Your task to perform on an android device: Open notification settings Image 0: 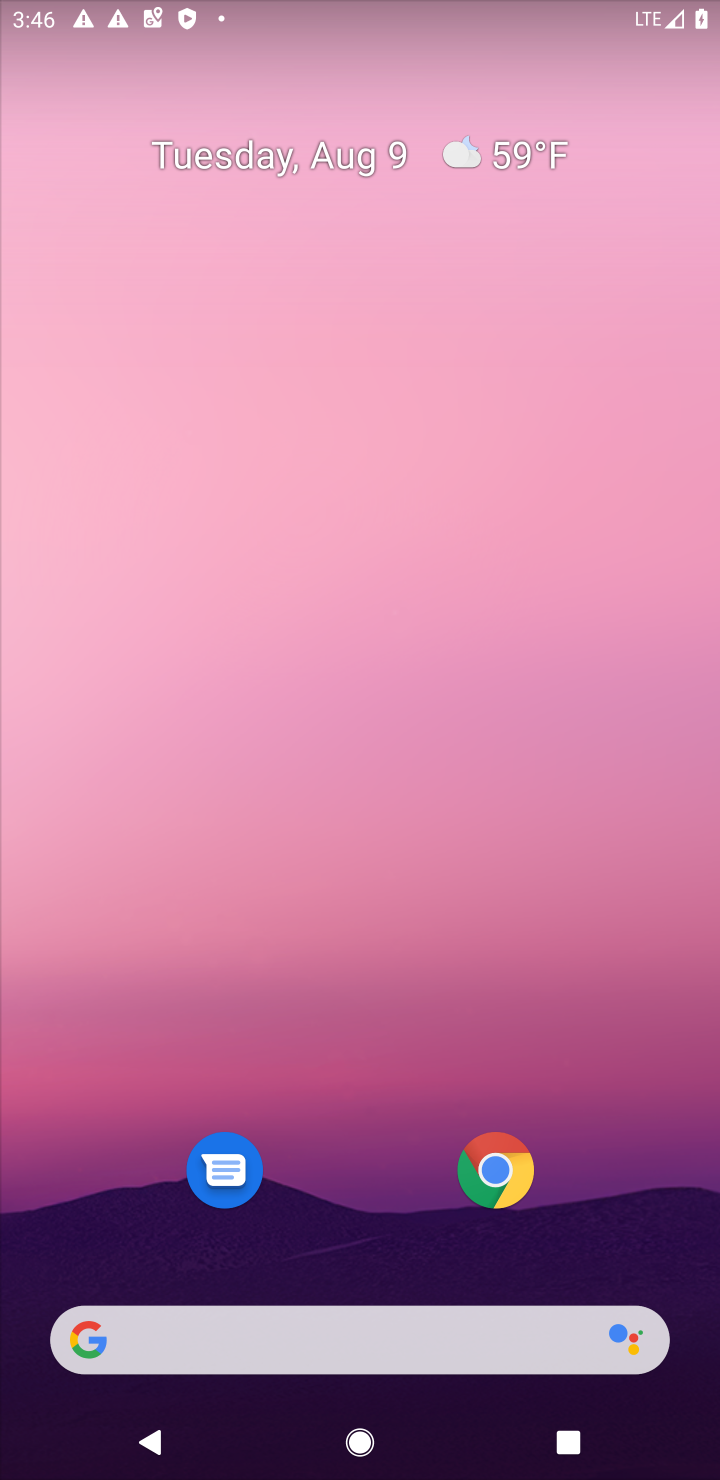
Step 0: press home button
Your task to perform on an android device: Open notification settings Image 1: 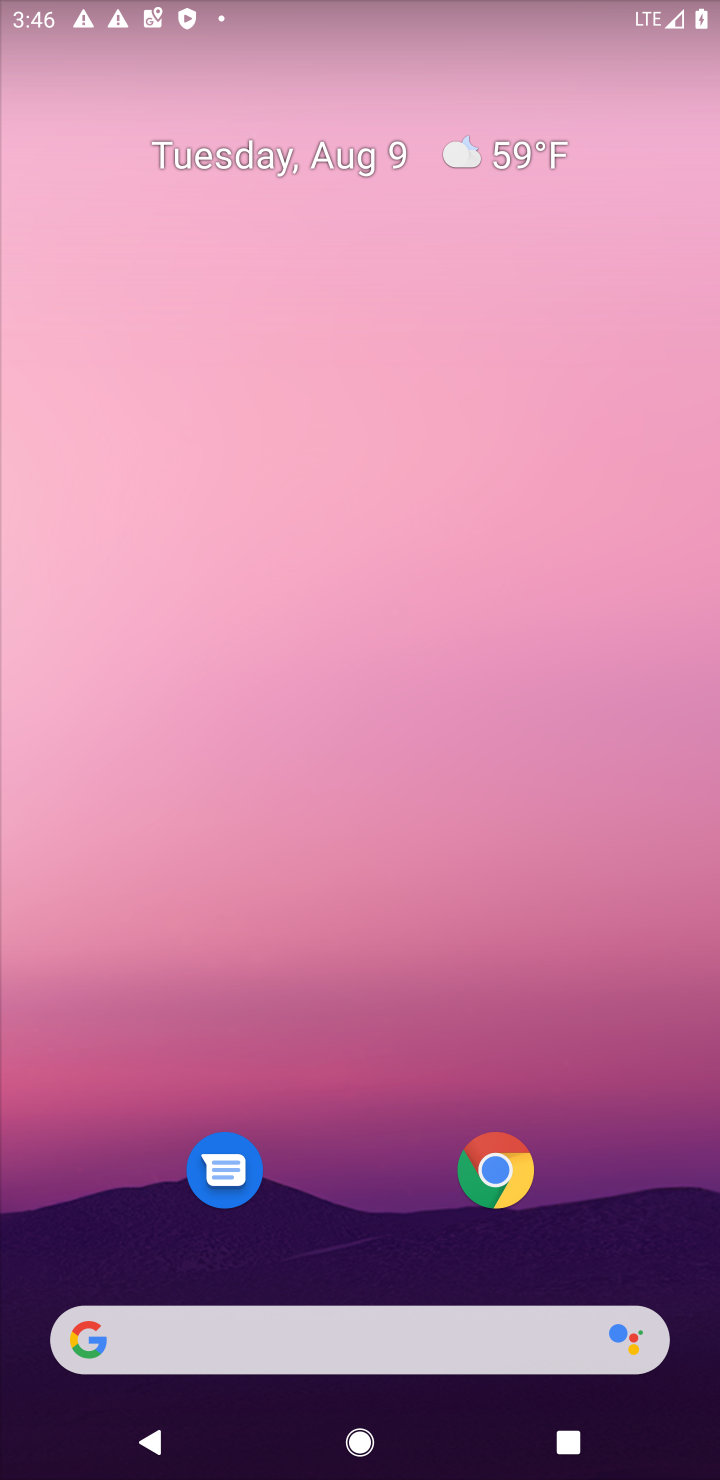
Step 1: drag from (355, 1196) to (582, 297)
Your task to perform on an android device: Open notification settings Image 2: 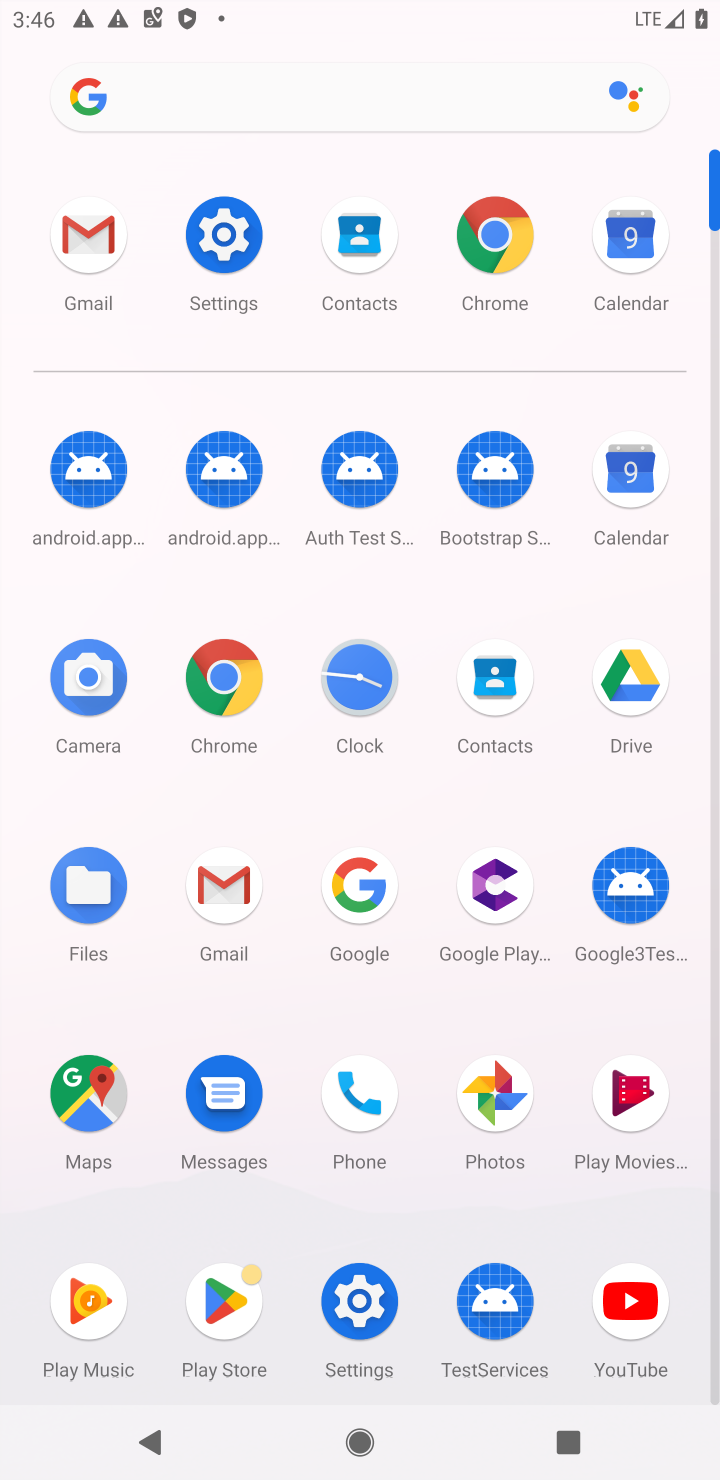
Step 2: click (213, 232)
Your task to perform on an android device: Open notification settings Image 3: 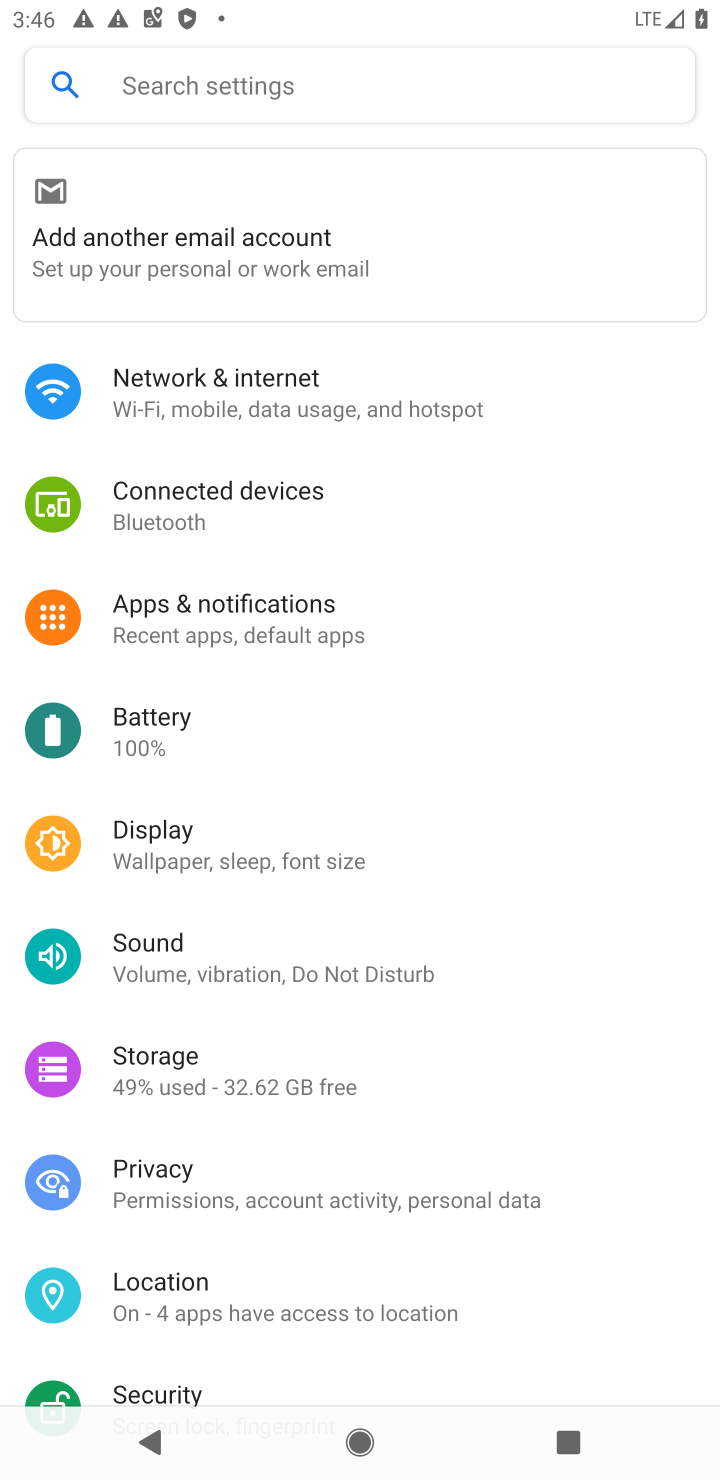
Step 3: click (174, 629)
Your task to perform on an android device: Open notification settings Image 4: 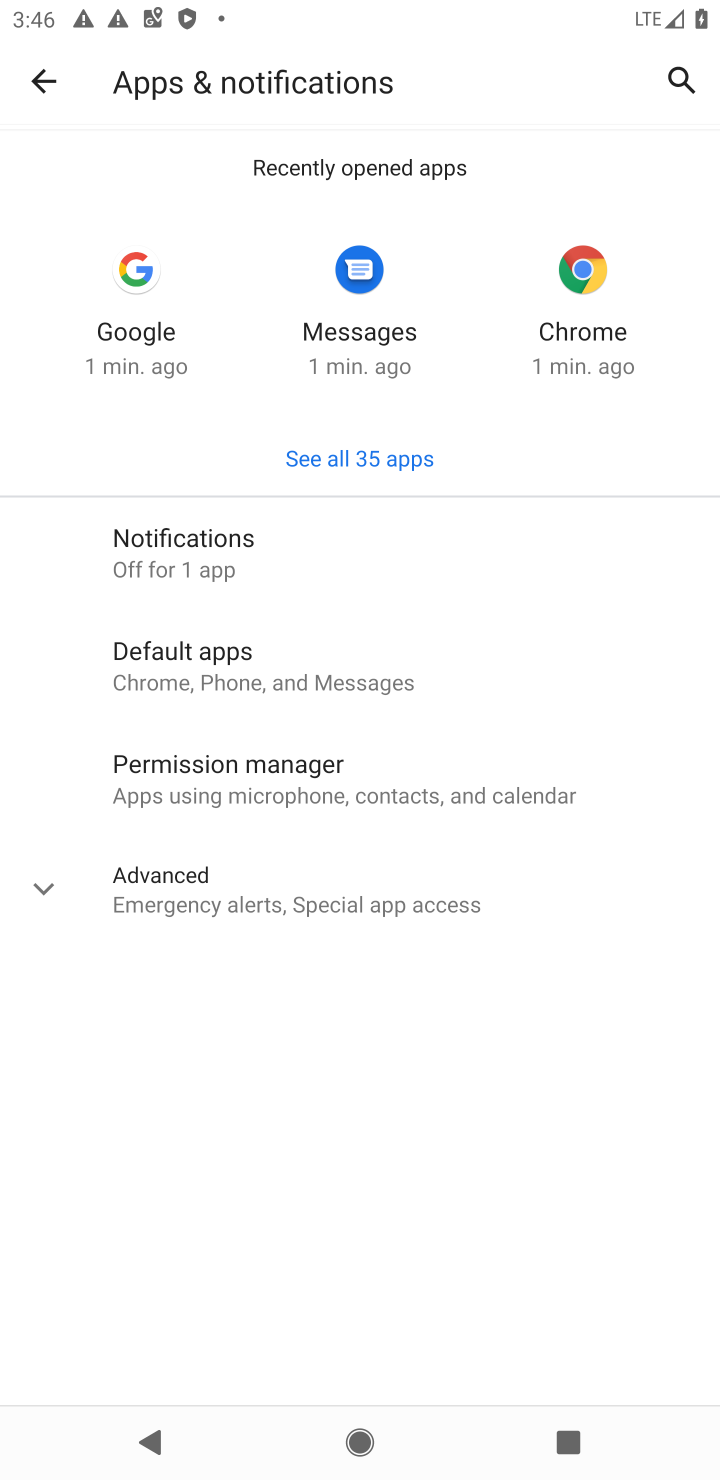
Step 4: click (191, 553)
Your task to perform on an android device: Open notification settings Image 5: 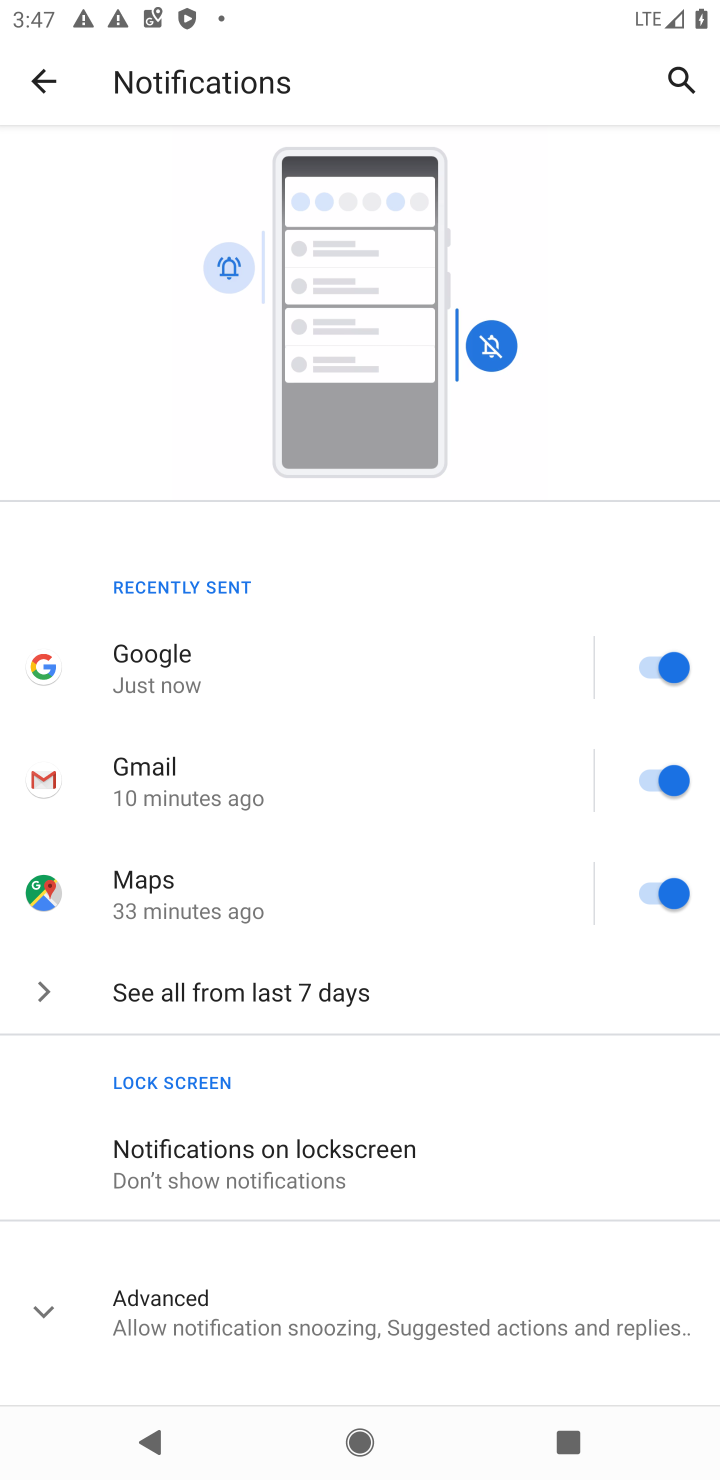
Step 5: click (233, 272)
Your task to perform on an android device: Open notification settings Image 6: 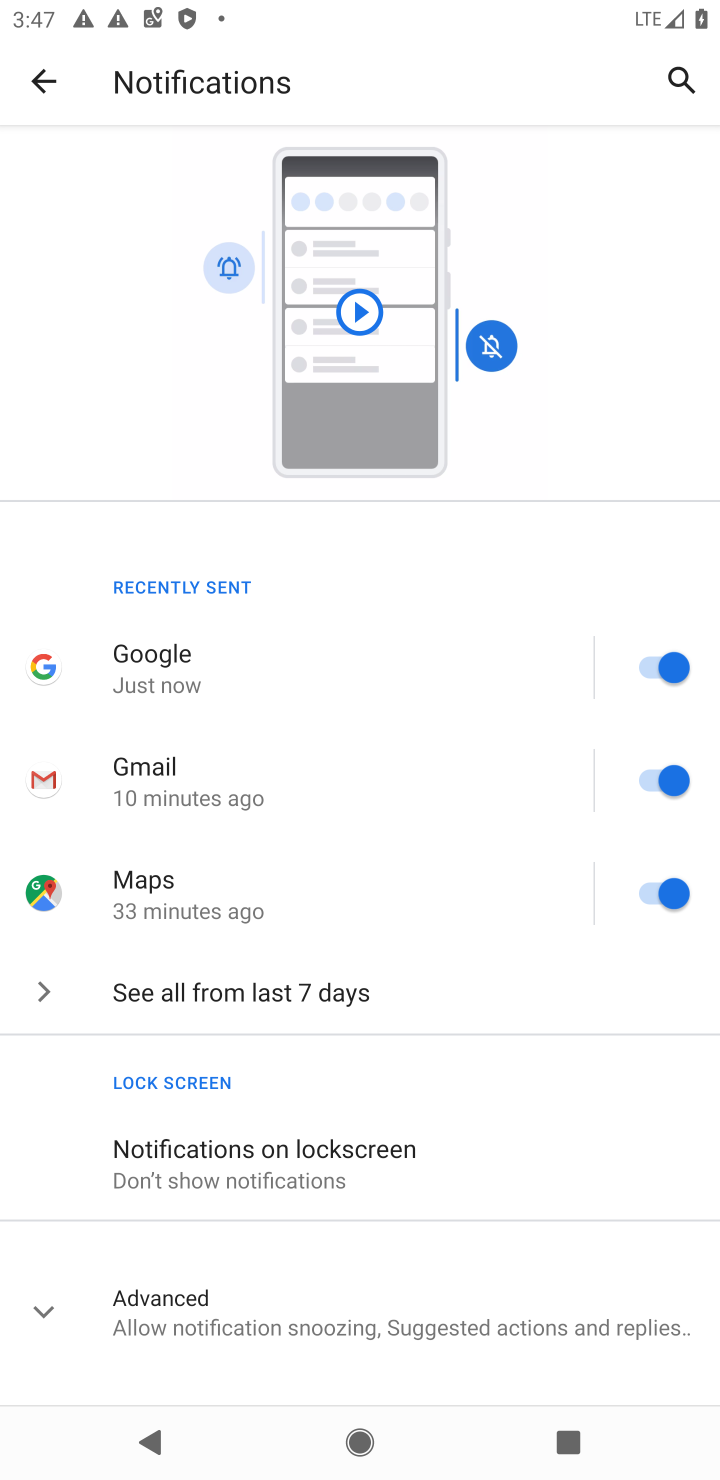
Step 6: click (225, 263)
Your task to perform on an android device: Open notification settings Image 7: 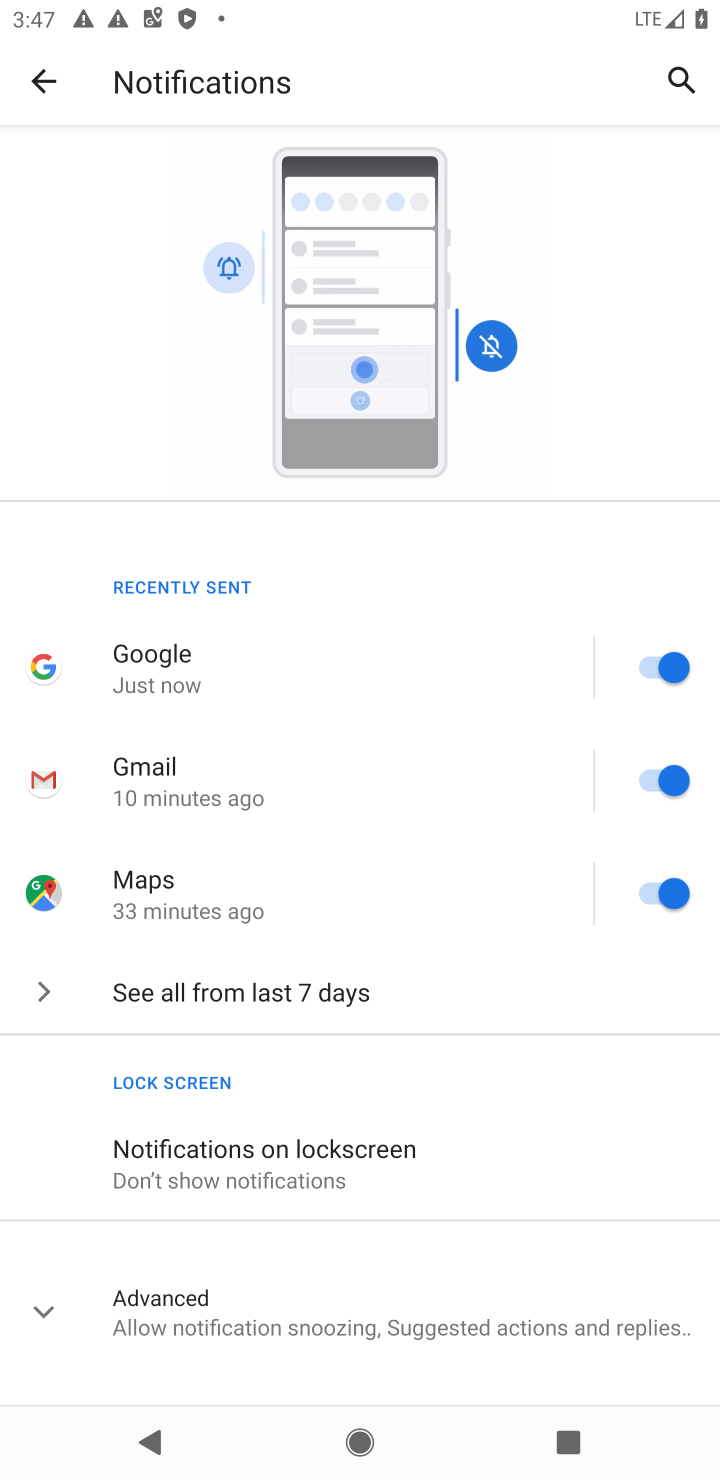
Step 7: click (238, 273)
Your task to perform on an android device: Open notification settings Image 8: 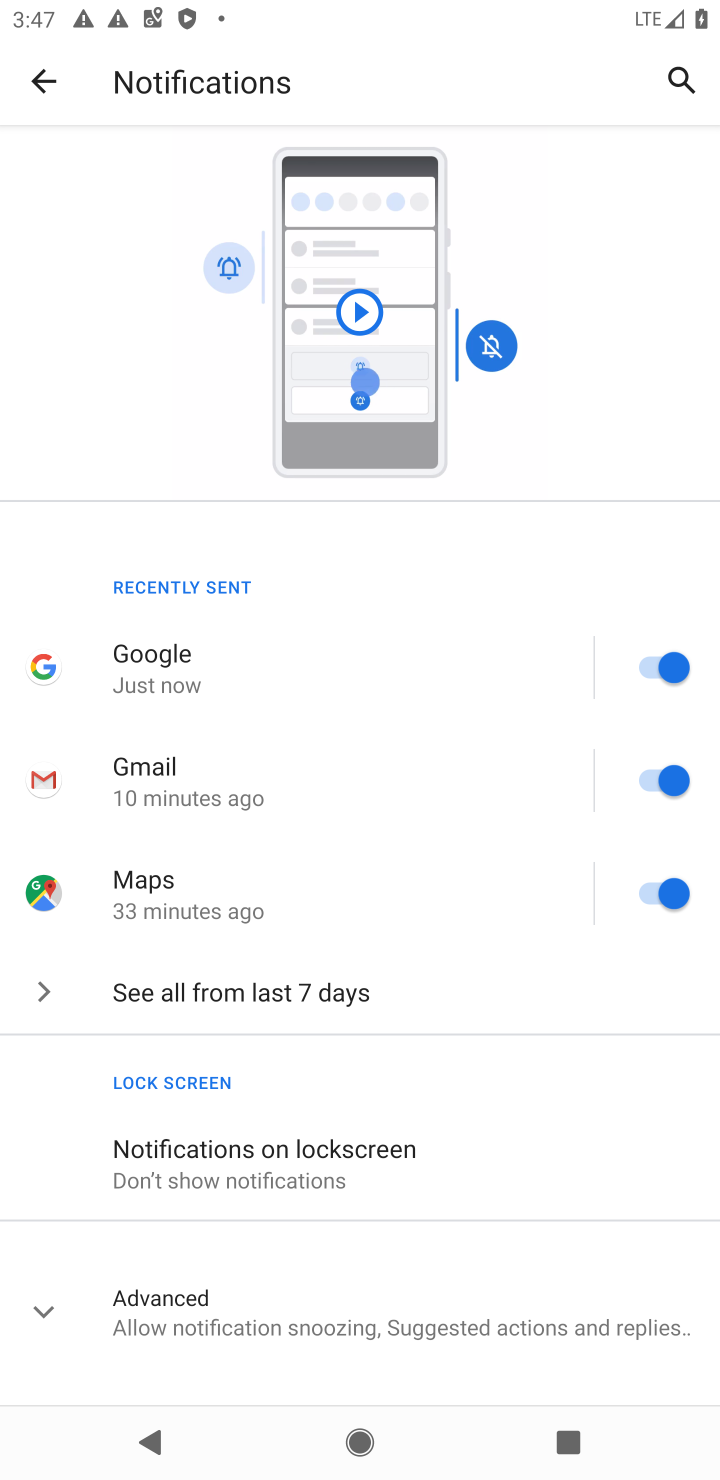
Step 8: click (230, 268)
Your task to perform on an android device: Open notification settings Image 9: 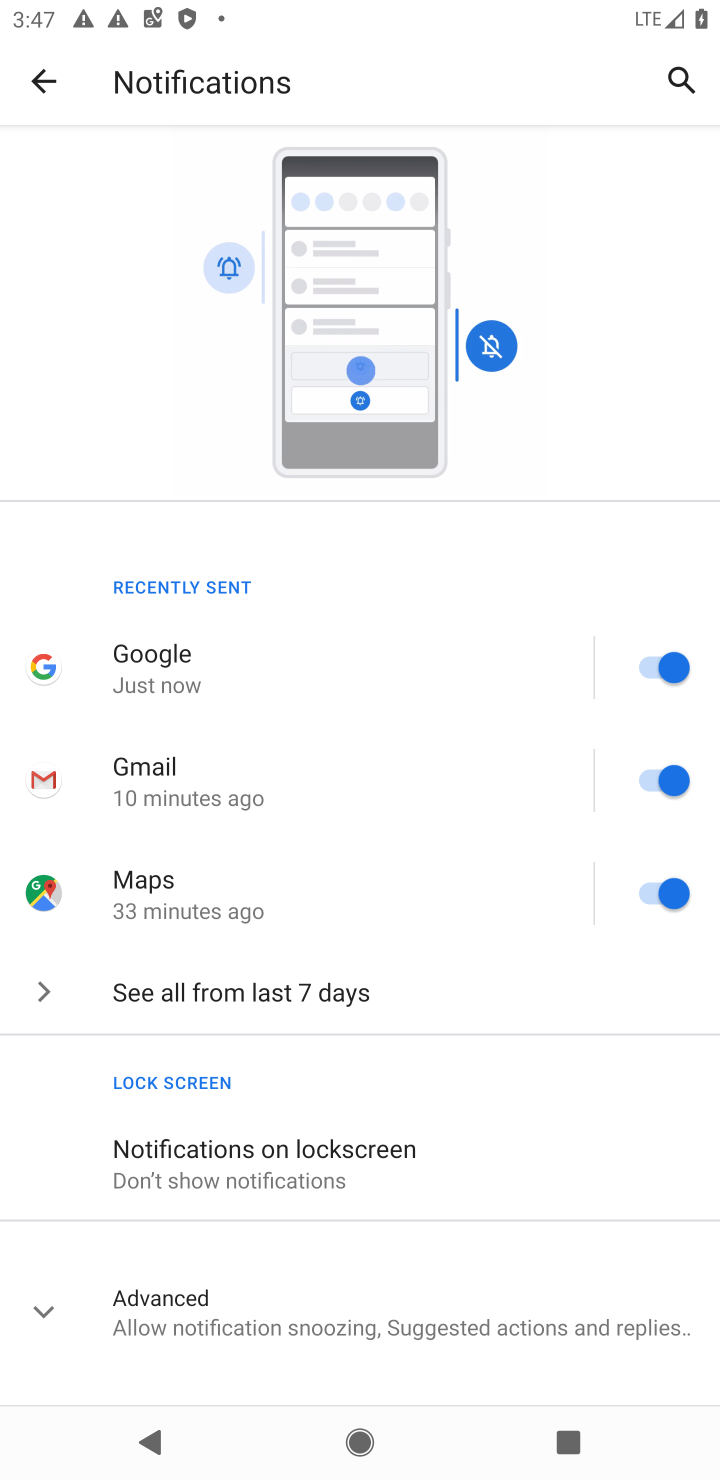
Step 9: click (488, 348)
Your task to perform on an android device: Open notification settings Image 10: 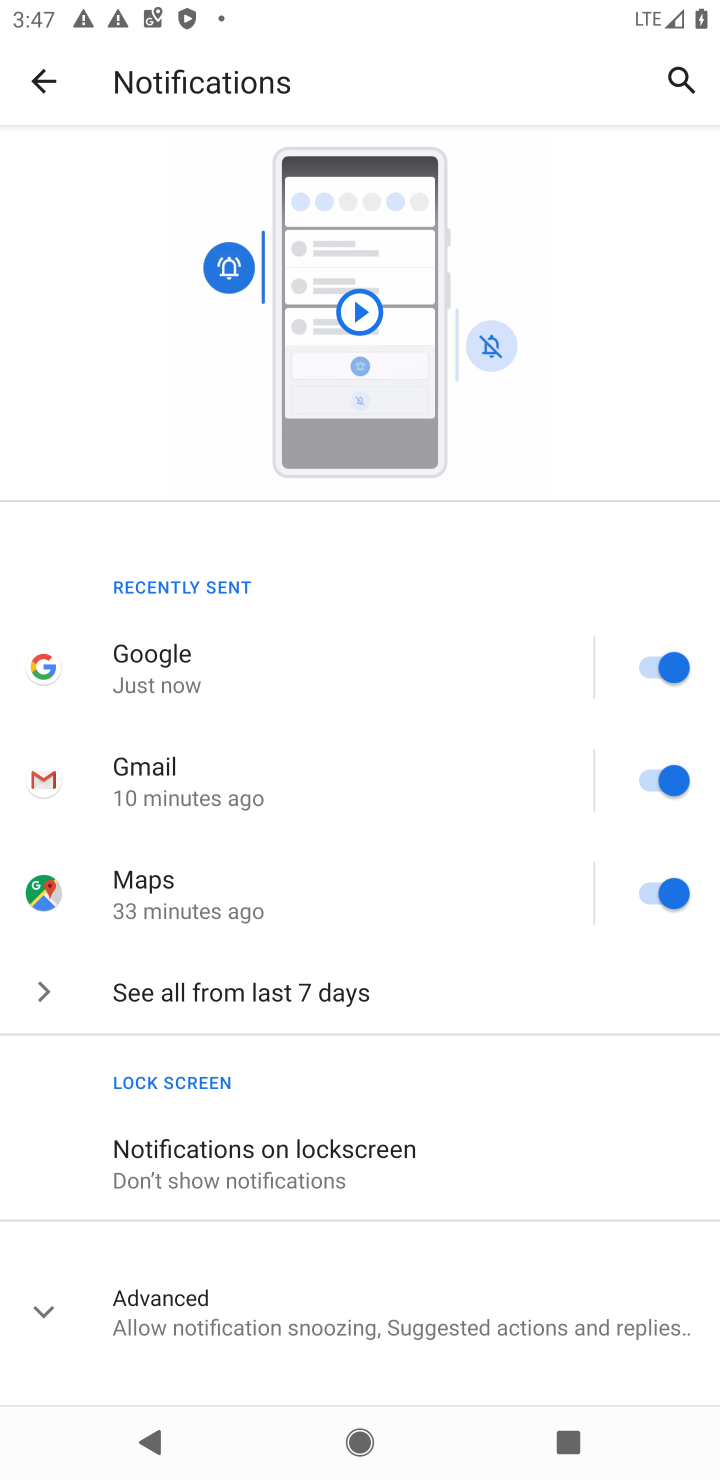
Step 10: task complete